Your task to perform on an android device: What's the weather today? Image 0: 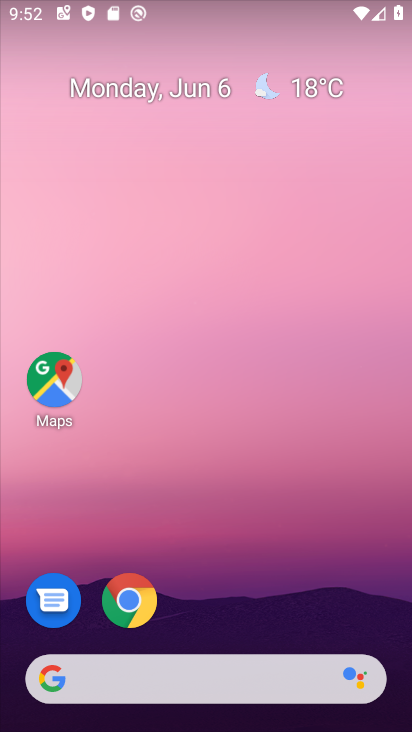
Step 0: drag from (244, 584) to (215, 18)
Your task to perform on an android device: What's the weather today? Image 1: 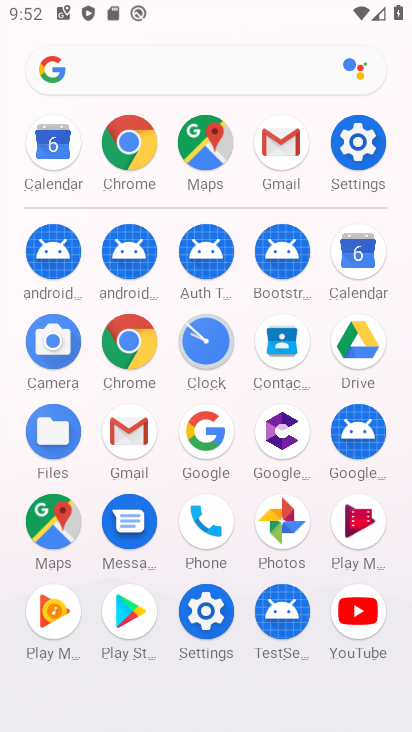
Step 1: click (121, 337)
Your task to perform on an android device: What's the weather today? Image 2: 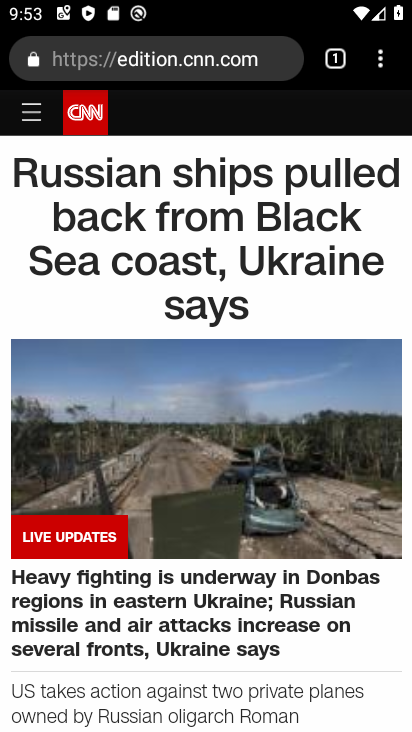
Step 2: click (198, 57)
Your task to perform on an android device: What's the weather today? Image 3: 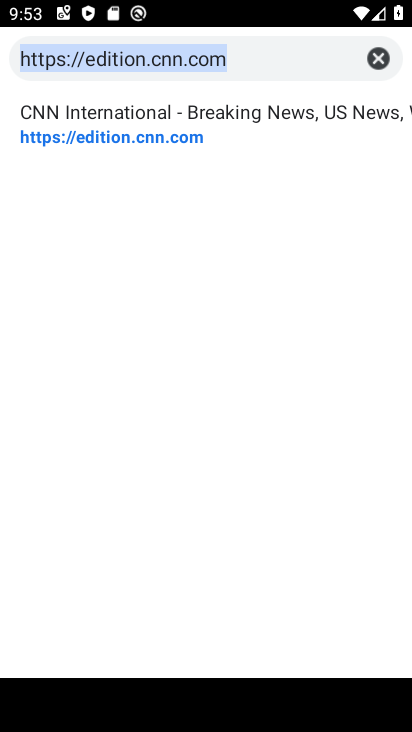
Step 3: click (380, 53)
Your task to perform on an android device: What's the weather today? Image 4: 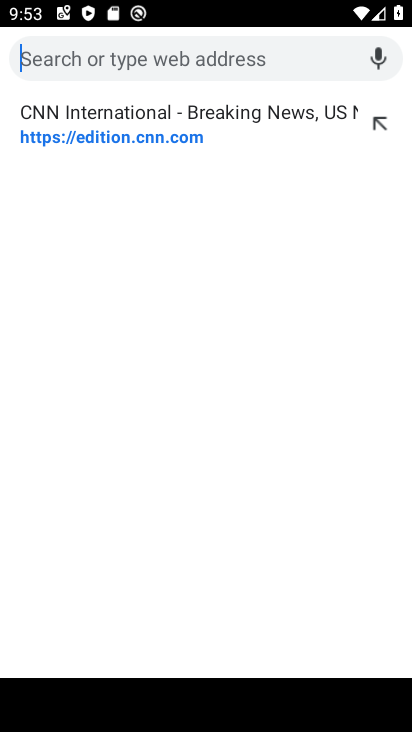
Step 4: type "What's the weather today?"
Your task to perform on an android device: What's the weather today? Image 5: 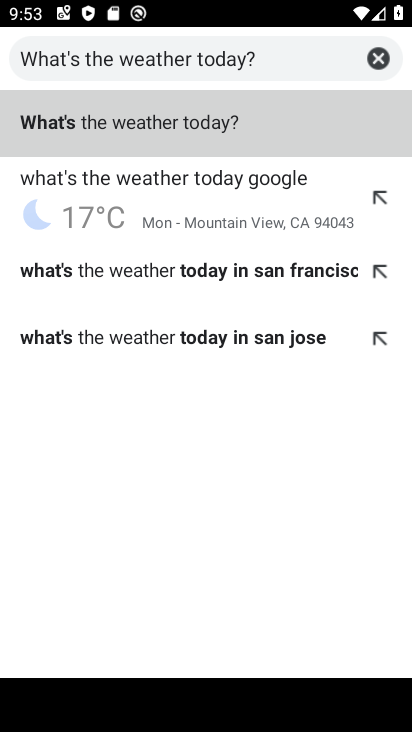
Step 5: click (173, 199)
Your task to perform on an android device: What's the weather today? Image 6: 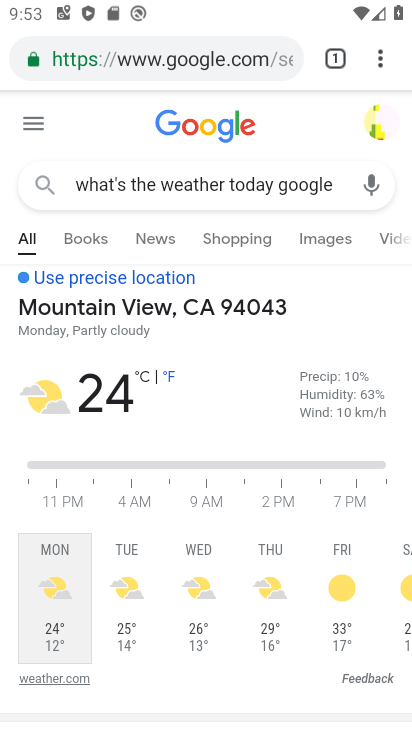
Step 6: task complete